Your task to perform on an android device: Go to Wikipedia Image 0: 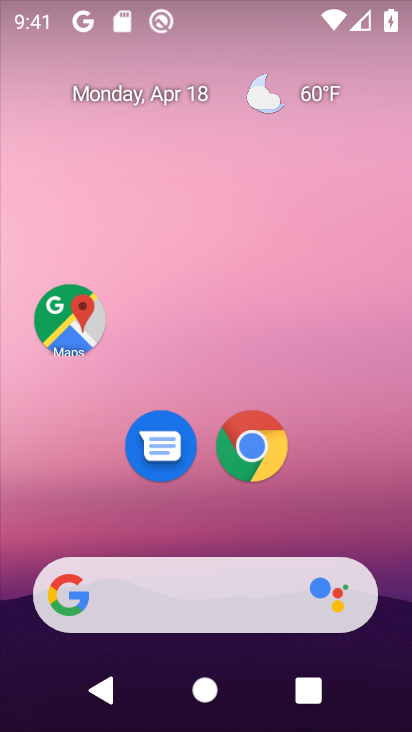
Step 0: drag from (398, 500) to (384, 141)
Your task to perform on an android device: Go to Wikipedia Image 1: 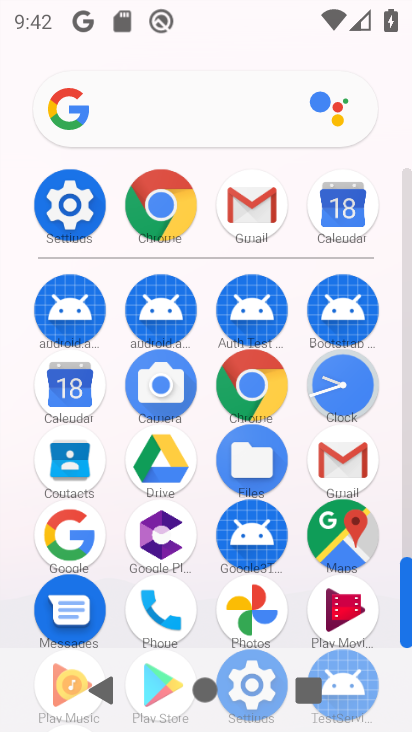
Step 1: click (247, 391)
Your task to perform on an android device: Go to Wikipedia Image 2: 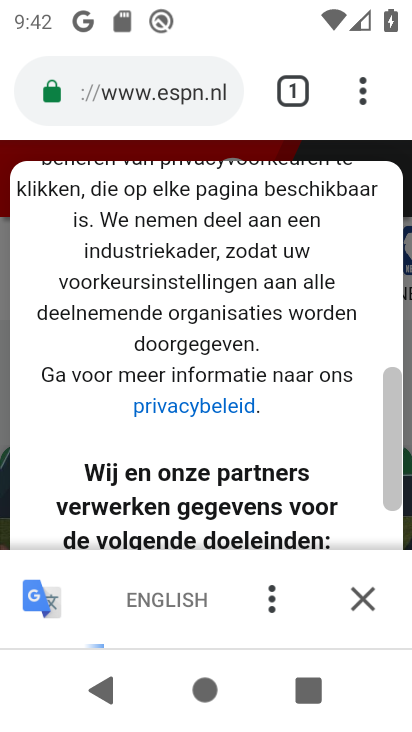
Step 2: press back button
Your task to perform on an android device: Go to Wikipedia Image 3: 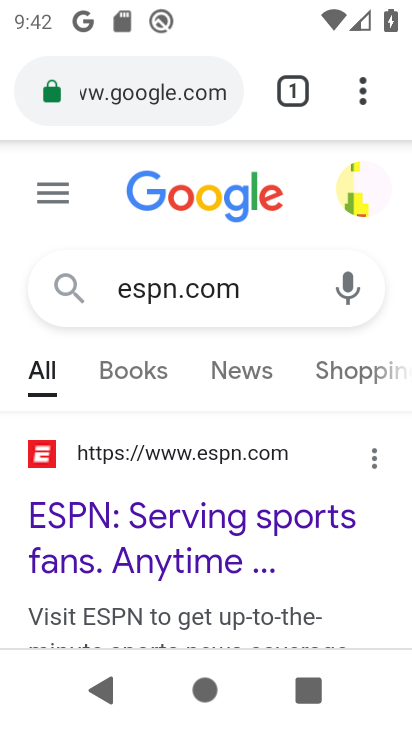
Step 3: press back button
Your task to perform on an android device: Go to Wikipedia Image 4: 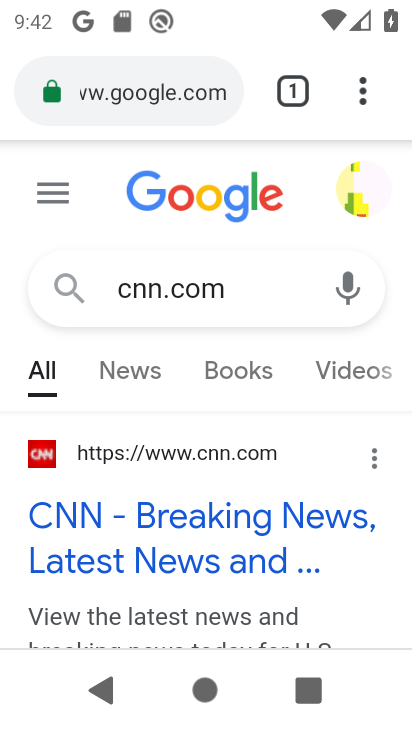
Step 4: press back button
Your task to perform on an android device: Go to Wikipedia Image 5: 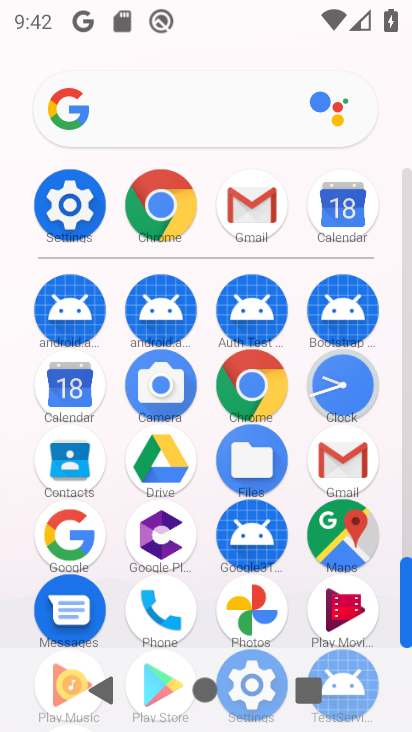
Step 5: click (242, 379)
Your task to perform on an android device: Go to Wikipedia Image 6: 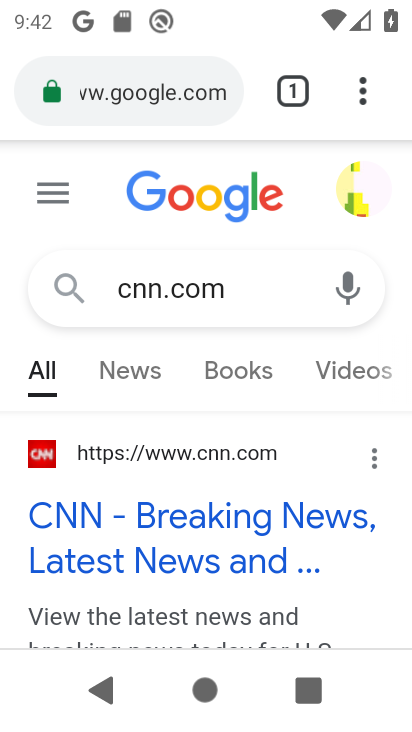
Step 6: click (233, 279)
Your task to perform on an android device: Go to Wikipedia Image 7: 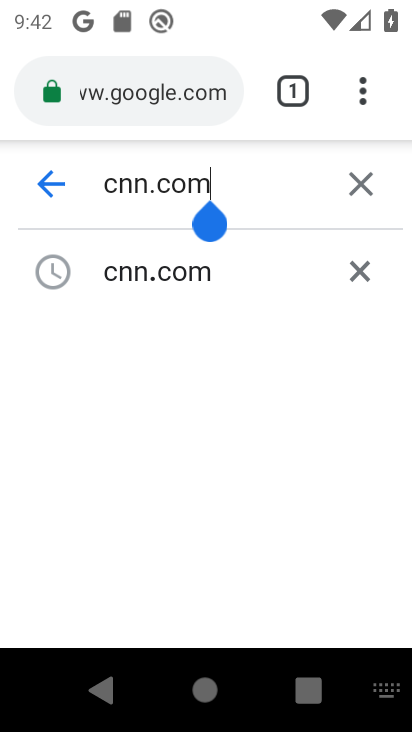
Step 7: click (360, 190)
Your task to perform on an android device: Go to Wikipedia Image 8: 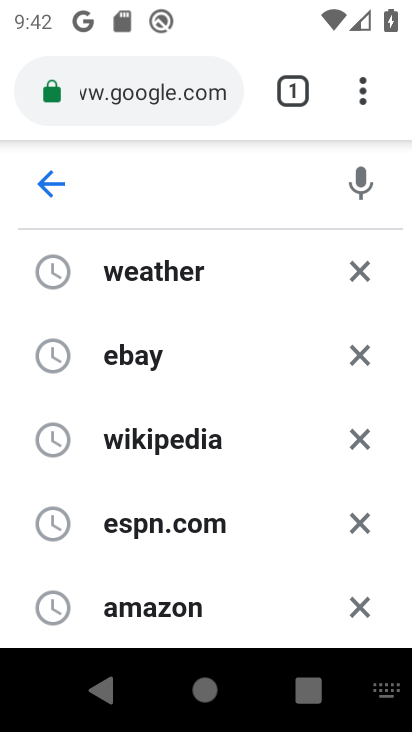
Step 8: type "wikipedia"
Your task to perform on an android device: Go to Wikipedia Image 9: 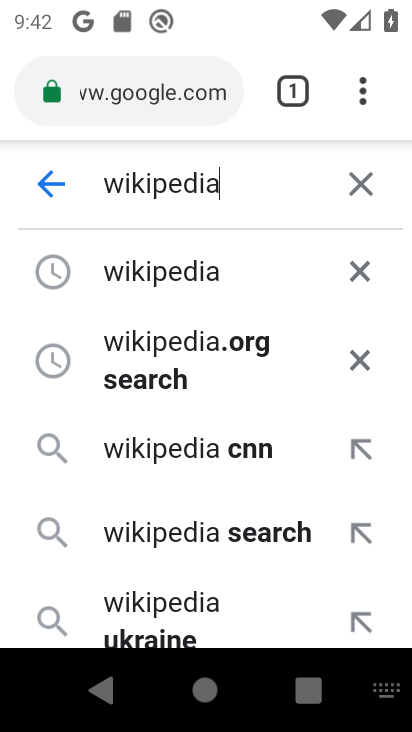
Step 9: click (164, 277)
Your task to perform on an android device: Go to Wikipedia Image 10: 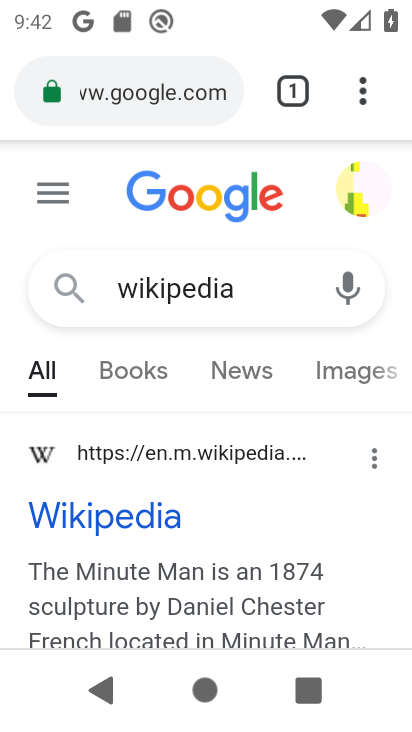
Step 10: click (156, 513)
Your task to perform on an android device: Go to Wikipedia Image 11: 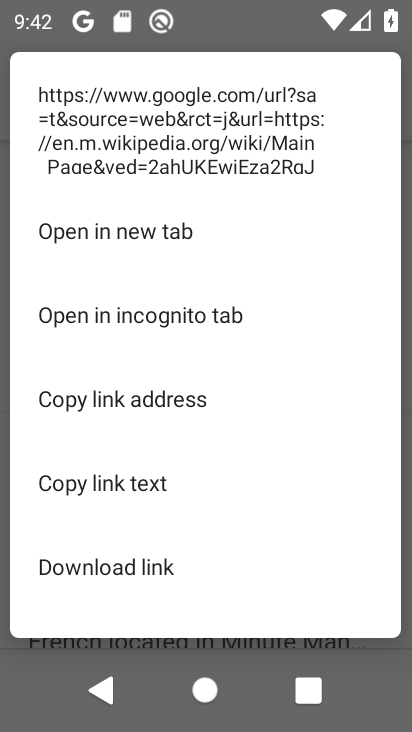
Step 11: click (365, 654)
Your task to perform on an android device: Go to Wikipedia Image 12: 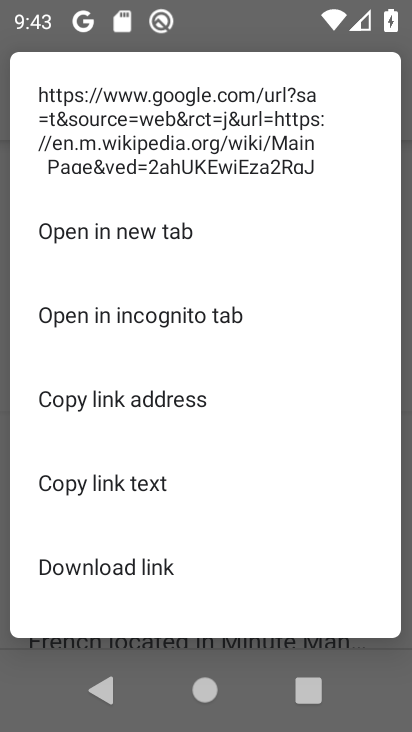
Step 12: press back button
Your task to perform on an android device: Go to Wikipedia Image 13: 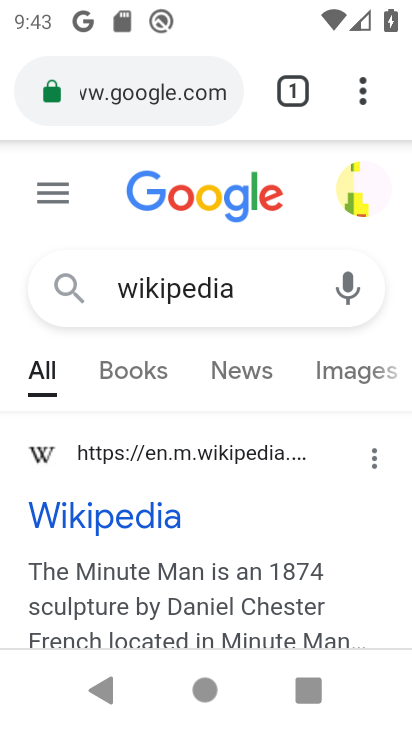
Step 13: click (119, 521)
Your task to perform on an android device: Go to Wikipedia Image 14: 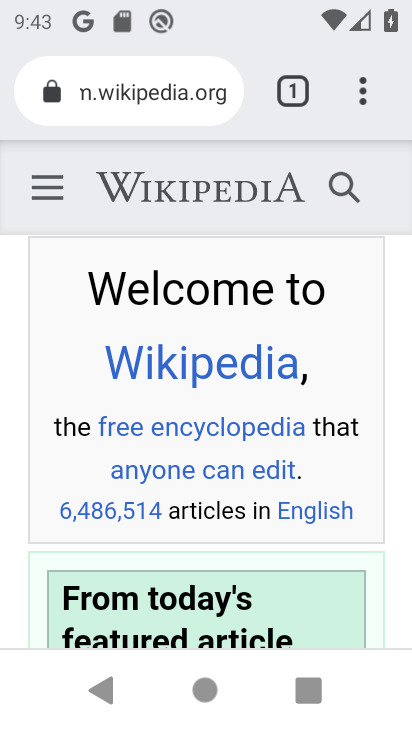
Step 14: task complete